Your task to perform on an android device: find which apps use the phone's location Image 0: 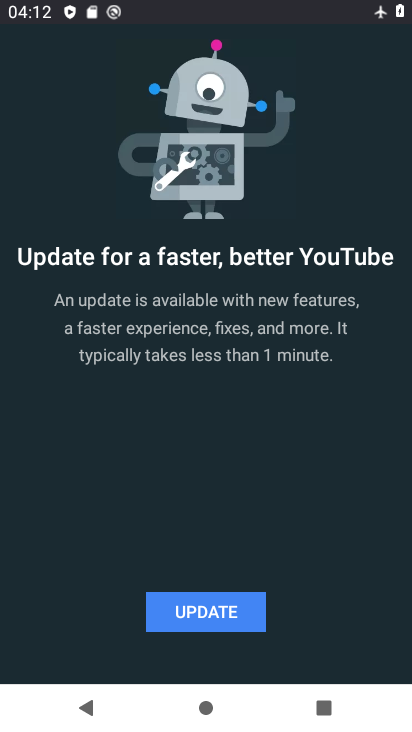
Step 0: press back button
Your task to perform on an android device: find which apps use the phone's location Image 1: 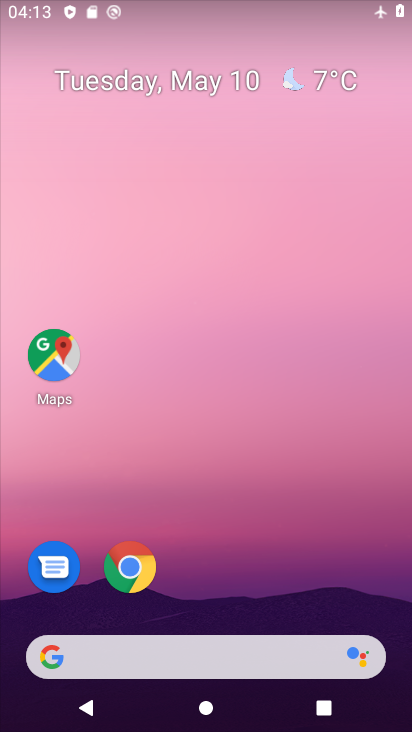
Step 1: drag from (217, 562) to (174, 58)
Your task to perform on an android device: find which apps use the phone's location Image 2: 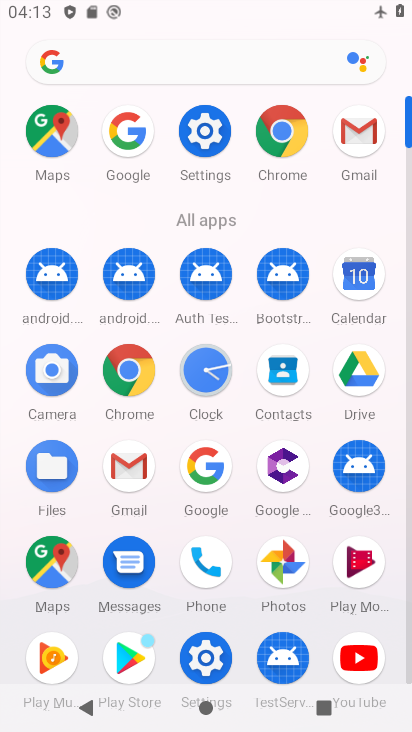
Step 2: click (204, 128)
Your task to perform on an android device: find which apps use the phone's location Image 3: 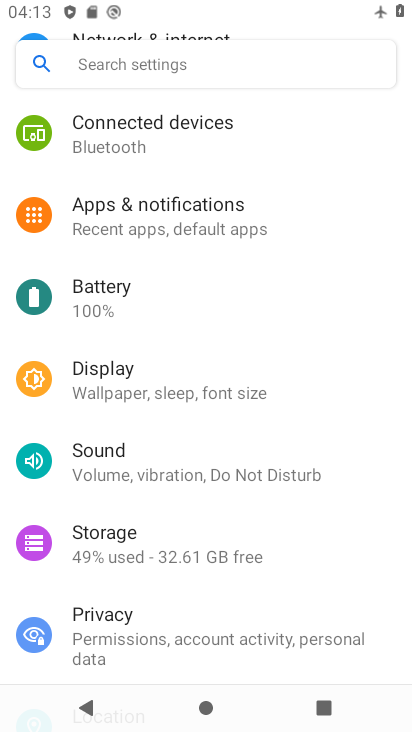
Step 3: drag from (181, 540) to (205, 369)
Your task to perform on an android device: find which apps use the phone's location Image 4: 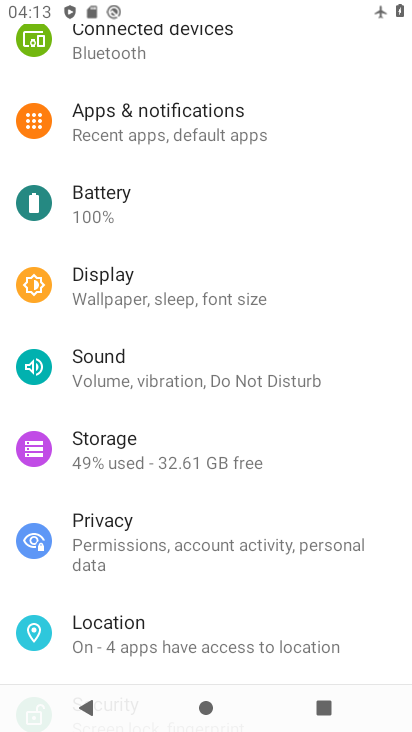
Step 4: drag from (177, 559) to (201, 418)
Your task to perform on an android device: find which apps use the phone's location Image 5: 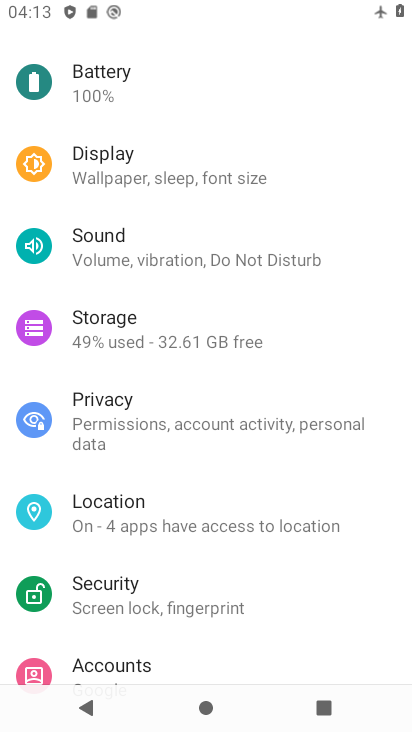
Step 5: click (137, 514)
Your task to perform on an android device: find which apps use the phone's location Image 6: 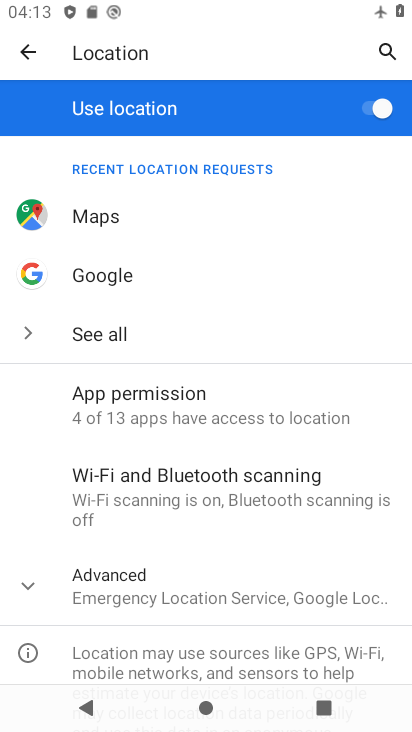
Step 6: click (148, 397)
Your task to perform on an android device: find which apps use the phone's location Image 7: 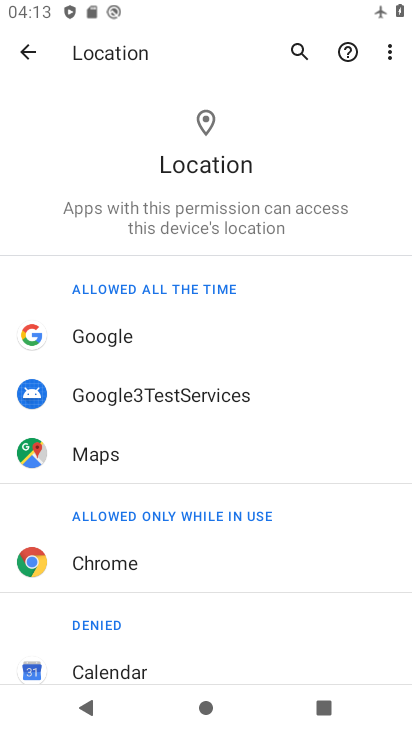
Step 7: click (93, 446)
Your task to perform on an android device: find which apps use the phone's location Image 8: 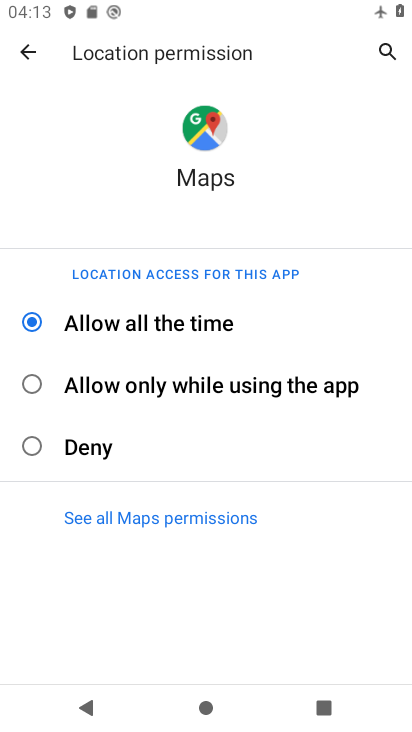
Step 8: task complete